Your task to perform on an android device: uninstall "Clock" Image 0: 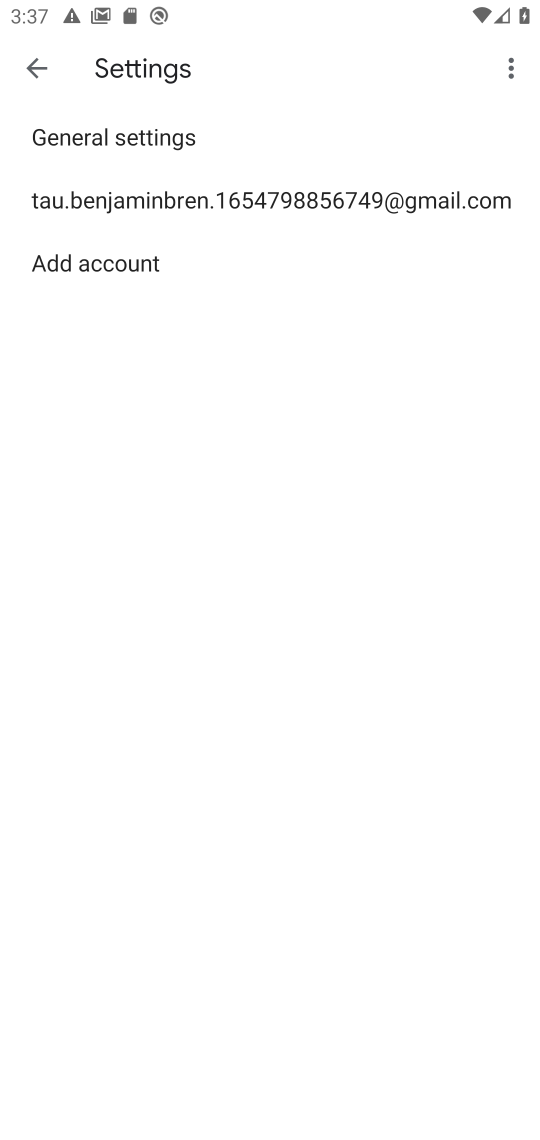
Step 0: press home button
Your task to perform on an android device: uninstall "Clock" Image 1: 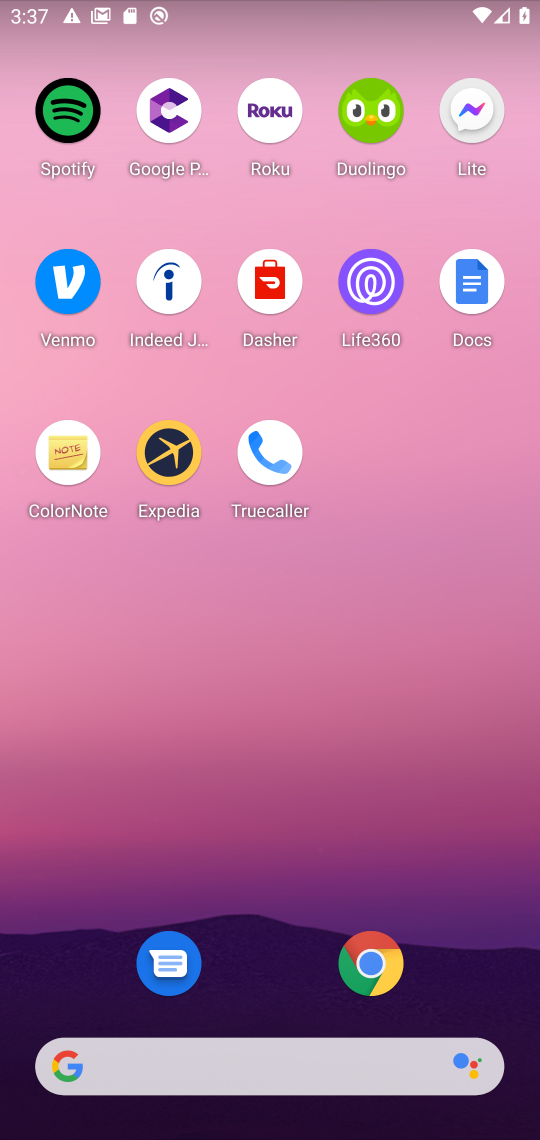
Step 1: drag from (240, 1014) to (364, 85)
Your task to perform on an android device: uninstall "Clock" Image 2: 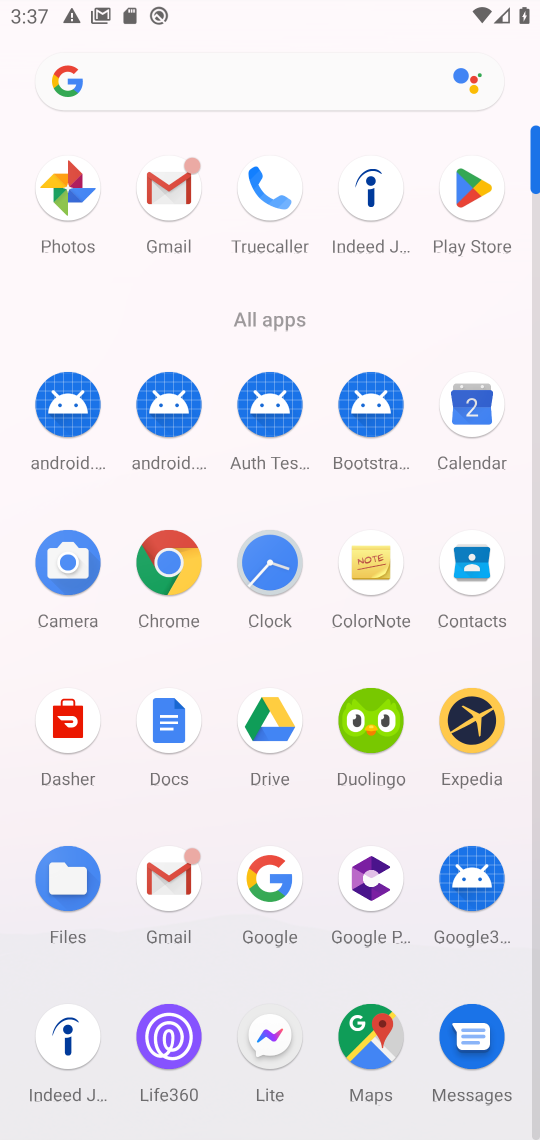
Step 2: click (257, 576)
Your task to perform on an android device: uninstall "Clock" Image 3: 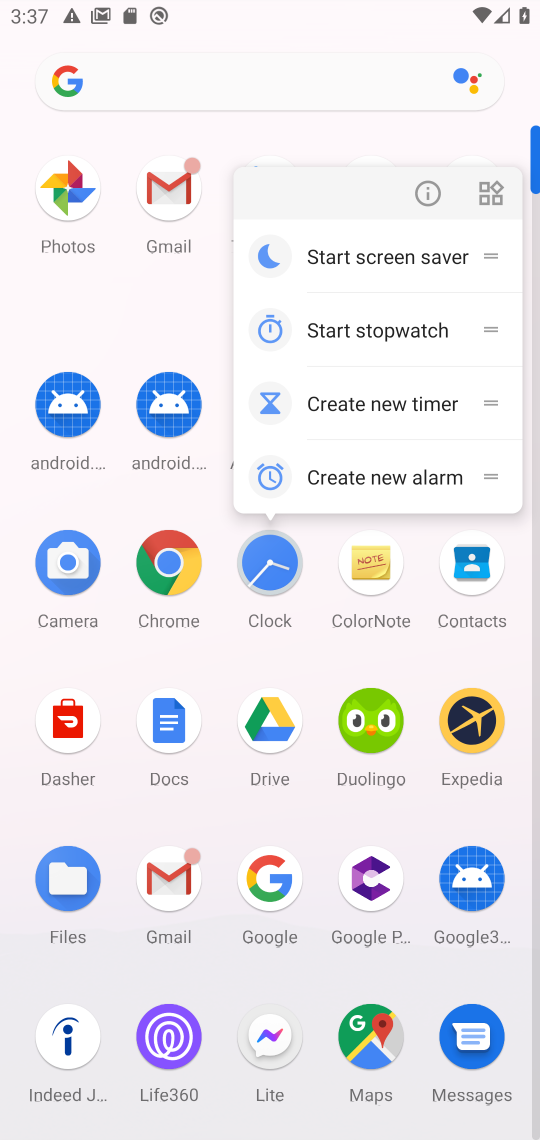
Step 3: task complete